Your task to perform on an android device: Go to Yahoo.com Image 0: 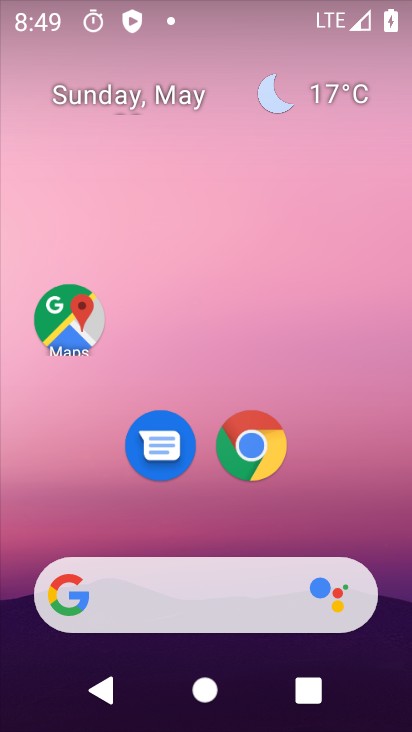
Step 0: drag from (170, 556) to (292, 221)
Your task to perform on an android device: Go to Yahoo.com Image 1: 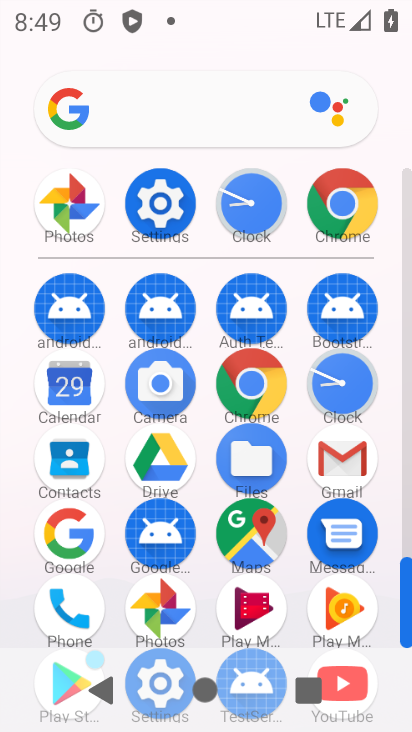
Step 1: click (152, 119)
Your task to perform on an android device: Go to Yahoo.com Image 2: 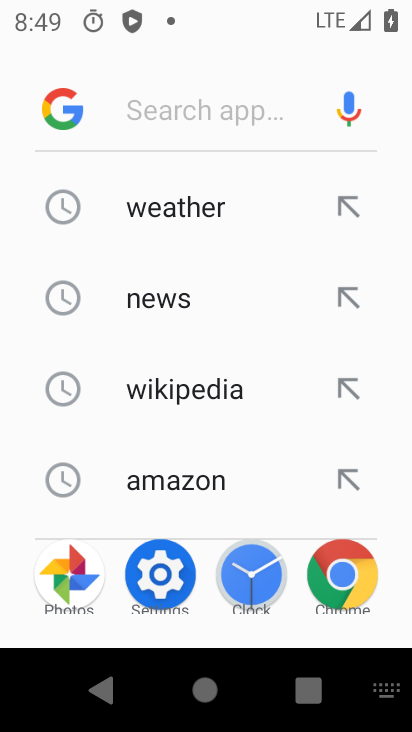
Step 2: type "Yahoo.com"
Your task to perform on an android device: Go to Yahoo.com Image 3: 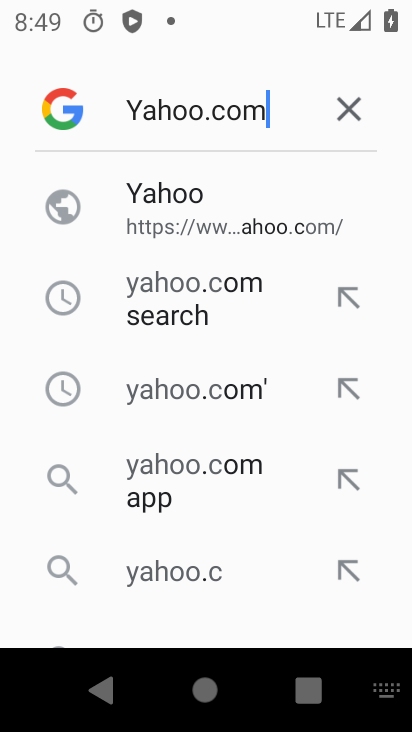
Step 3: type ""
Your task to perform on an android device: Go to Yahoo.com Image 4: 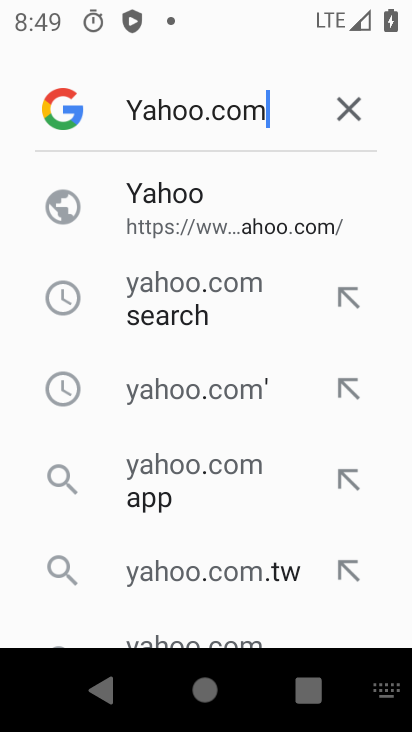
Step 4: click (171, 216)
Your task to perform on an android device: Go to Yahoo.com Image 5: 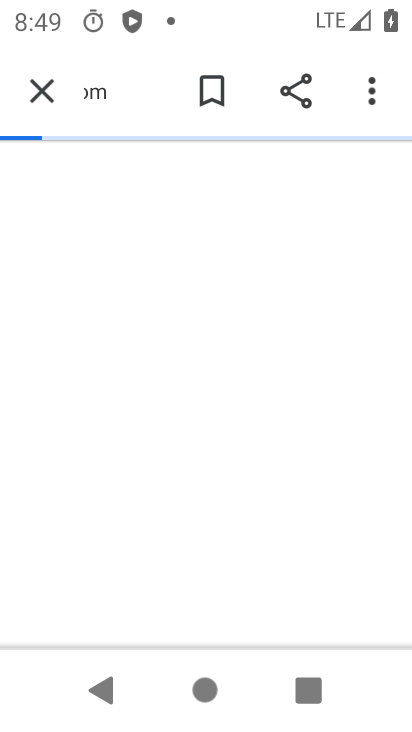
Step 5: drag from (231, 588) to (328, 211)
Your task to perform on an android device: Go to Yahoo.com Image 6: 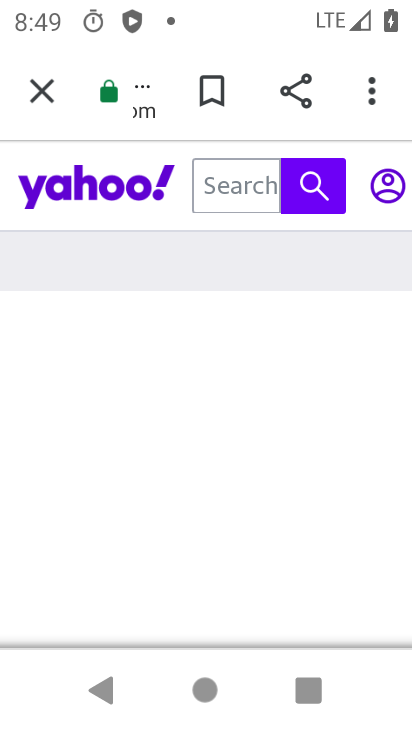
Step 6: click (341, 169)
Your task to perform on an android device: Go to Yahoo.com Image 7: 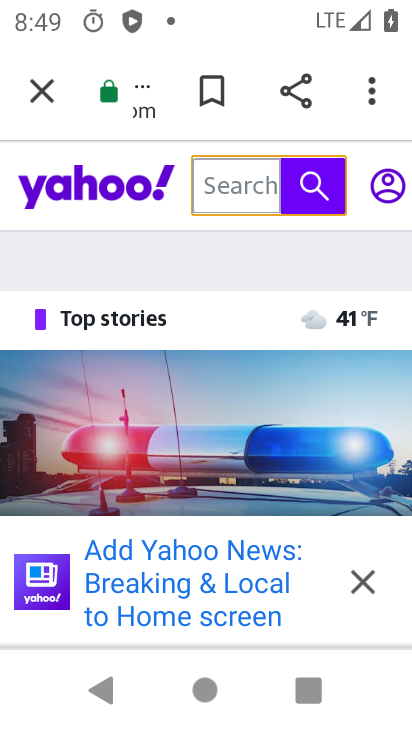
Step 7: task complete